Your task to perform on an android device: toggle priority inbox in the gmail app Image 0: 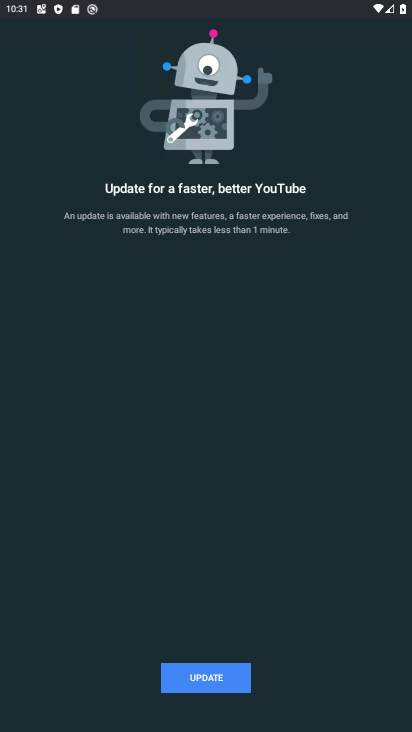
Step 0: press home button
Your task to perform on an android device: toggle priority inbox in the gmail app Image 1: 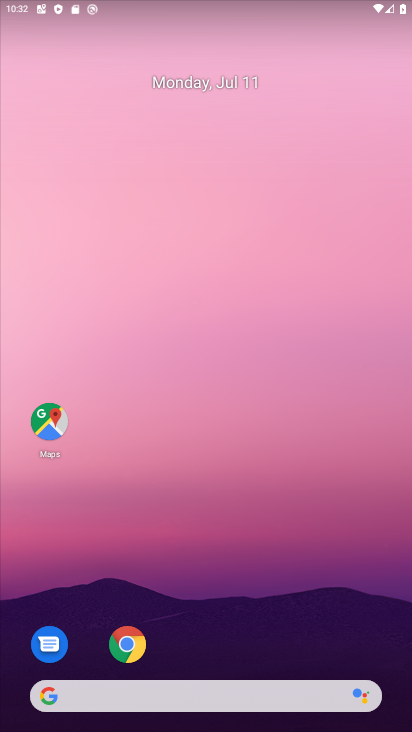
Step 1: drag from (212, 648) to (257, 71)
Your task to perform on an android device: toggle priority inbox in the gmail app Image 2: 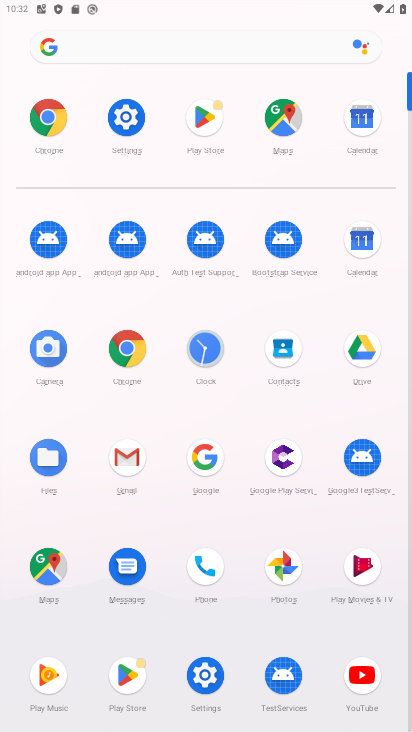
Step 2: click (114, 452)
Your task to perform on an android device: toggle priority inbox in the gmail app Image 3: 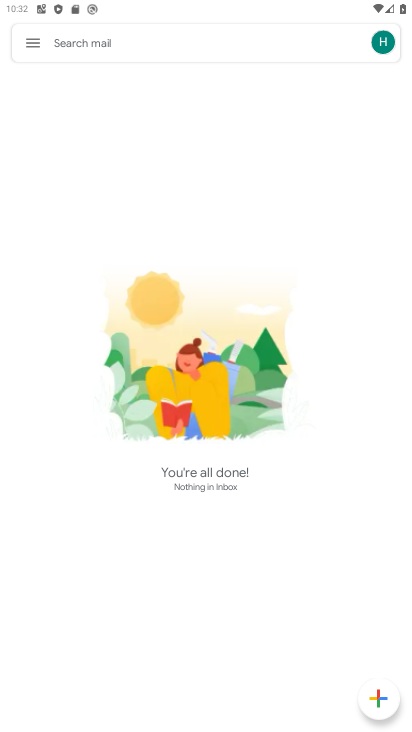
Step 3: click (30, 38)
Your task to perform on an android device: toggle priority inbox in the gmail app Image 4: 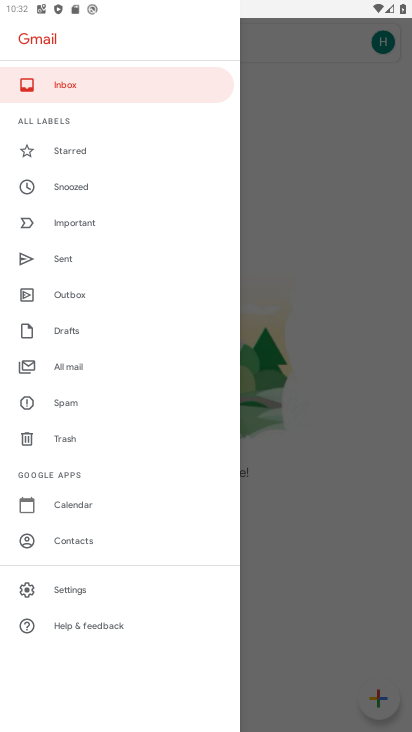
Step 4: click (67, 586)
Your task to perform on an android device: toggle priority inbox in the gmail app Image 5: 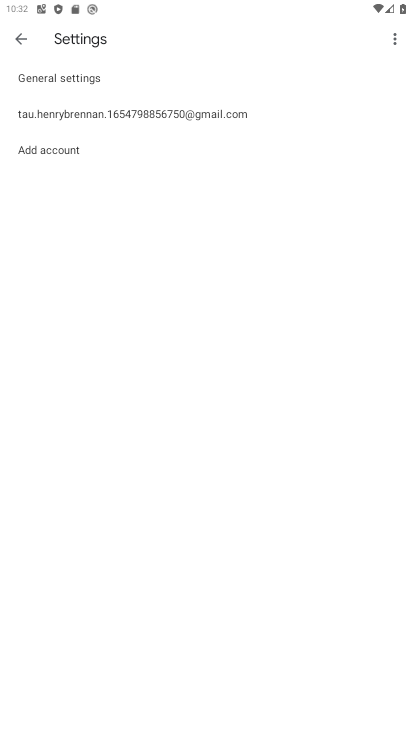
Step 5: click (120, 123)
Your task to perform on an android device: toggle priority inbox in the gmail app Image 6: 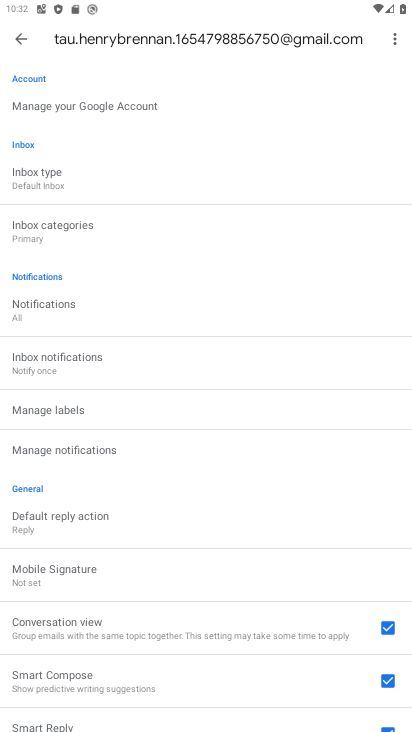
Step 6: click (76, 189)
Your task to perform on an android device: toggle priority inbox in the gmail app Image 7: 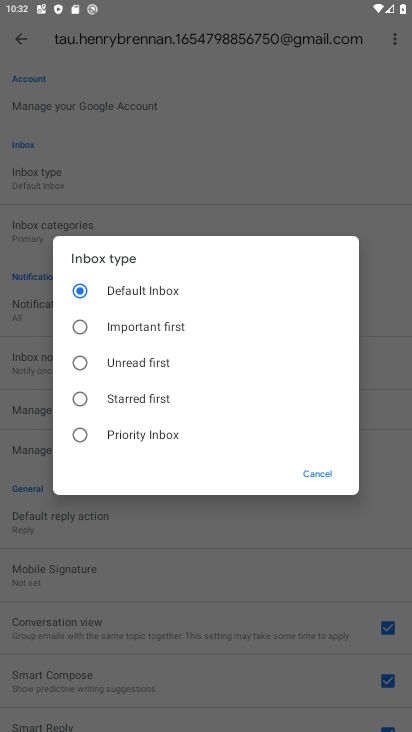
Step 7: click (134, 433)
Your task to perform on an android device: toggle priority inbox in the gmail app Image 8: 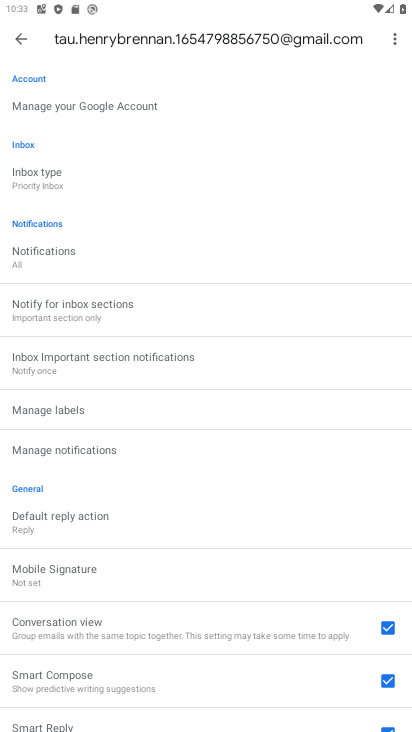
Step 8: task complete